Your task to perform on an android device: change alarm snooze length Image 0: 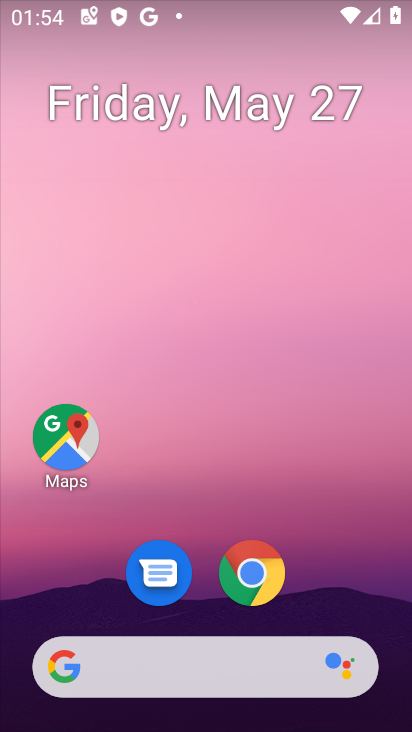
Step 0: drag from (206, 595) to (314, 27)
Your task to perform on an android device: change alarm snooze length Image 1: 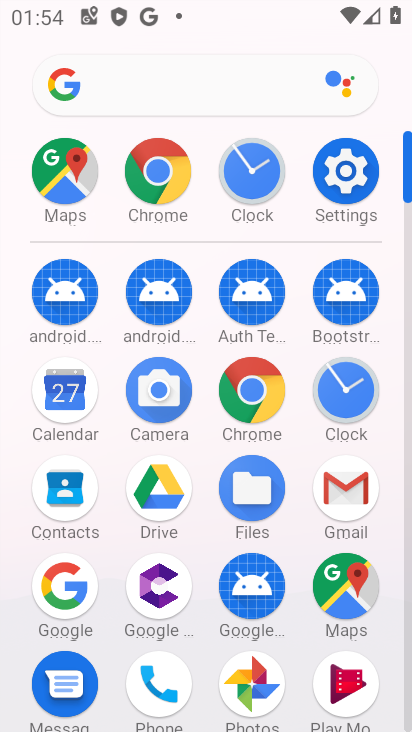
Step 1: click (328, 382)
Your task to perform on an android device: change alarm snooze length Image 2: 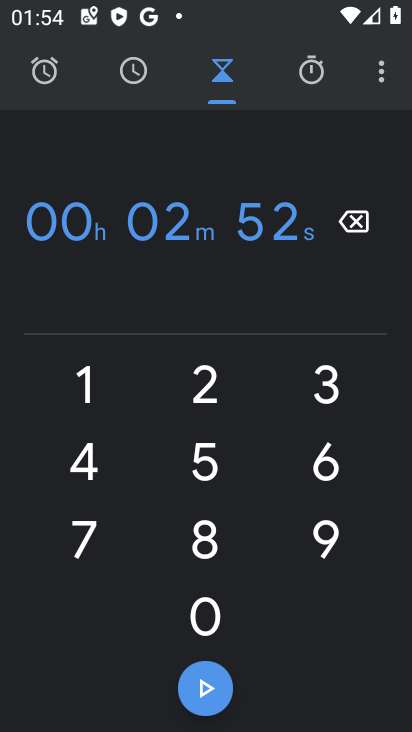
Step 2: click (382, 70)
Your task to perform on an android device: change alarm snooze length Image 3: 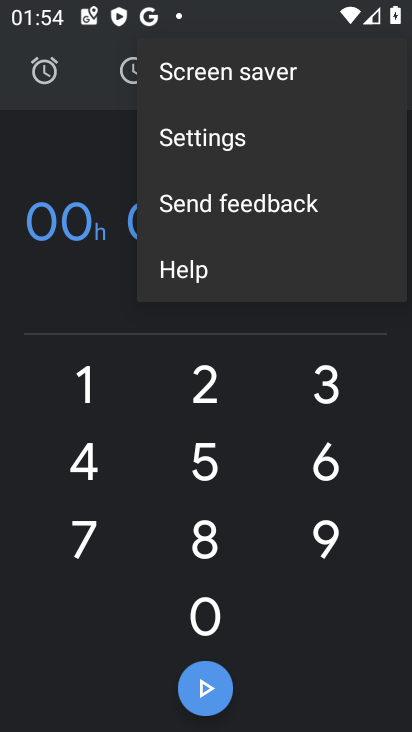
Step 3: click (204, 123)
Your task to perform on an android device: change alarm snooze length Image 4: 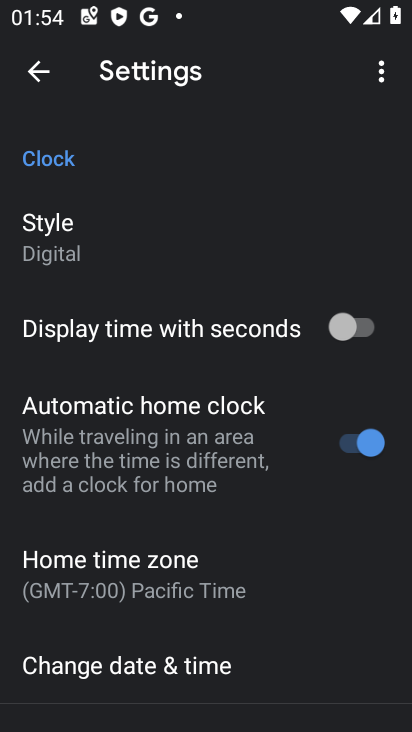
Step 4: drag from (145, 471) to (130, 175)
Your task to perform on an android device: change alarm snooze length Image 5: 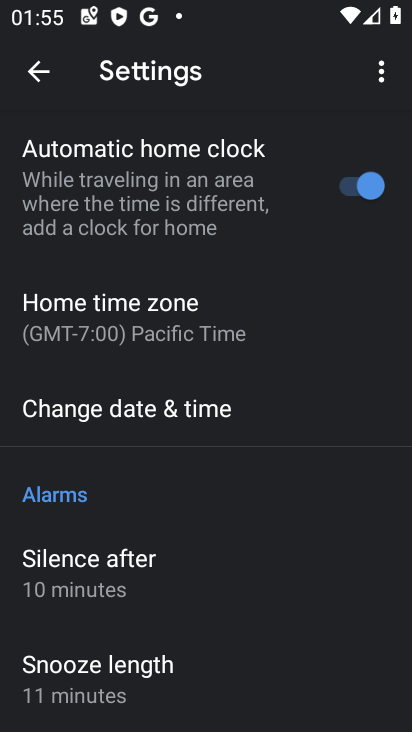
Step 5: click (120, 661)
Your task to perform on an android device: change alarm snooze length Image 6: 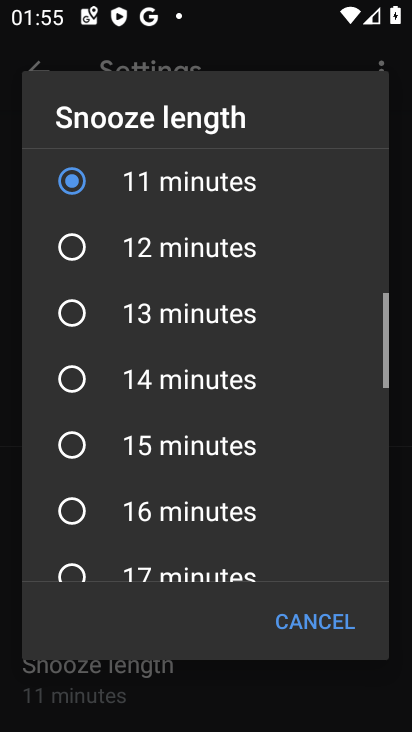
Step 6: click (140, 300)
Your task to perform on an android device: change alarm snooze length Image 7: 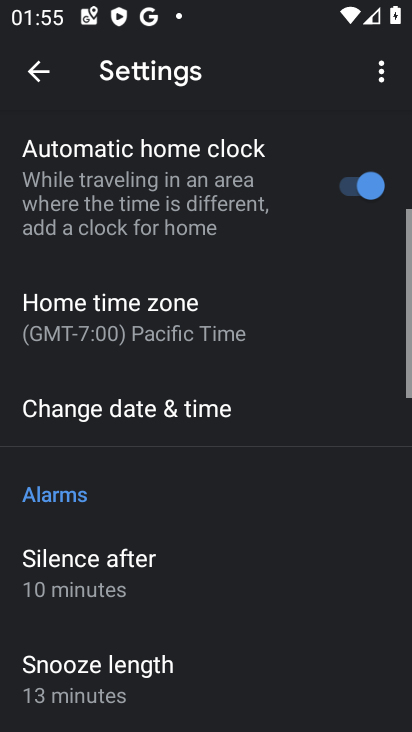
Step 7: task complete